Your task to perform on an android device: Open the map Image 0: 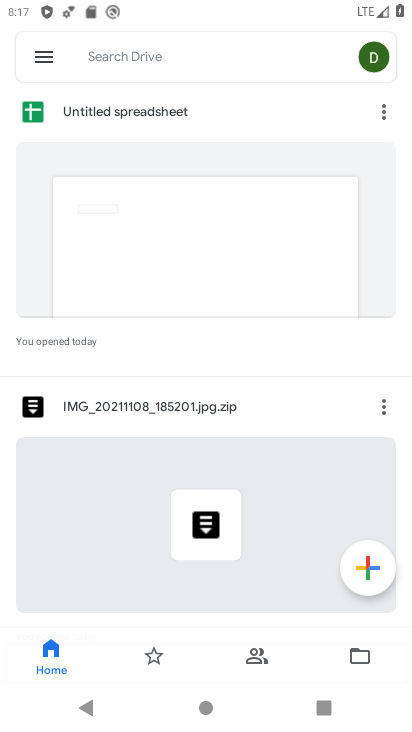
Step 0: press back button
Your task to perform on an android device: Open the map Image 1: 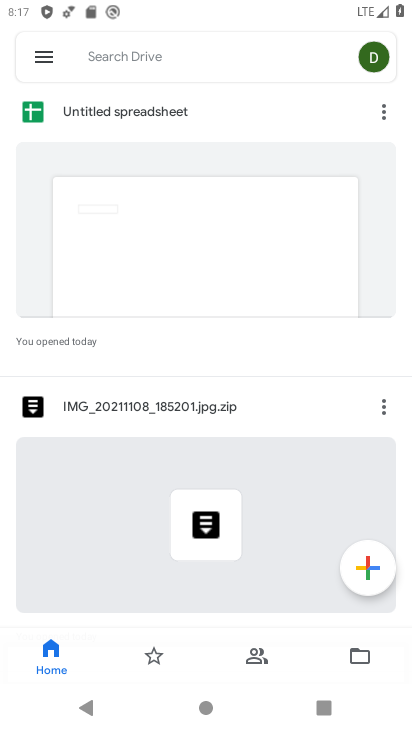
Step 1: press back button
Your task to perform on an android device: Open the map Image 2: 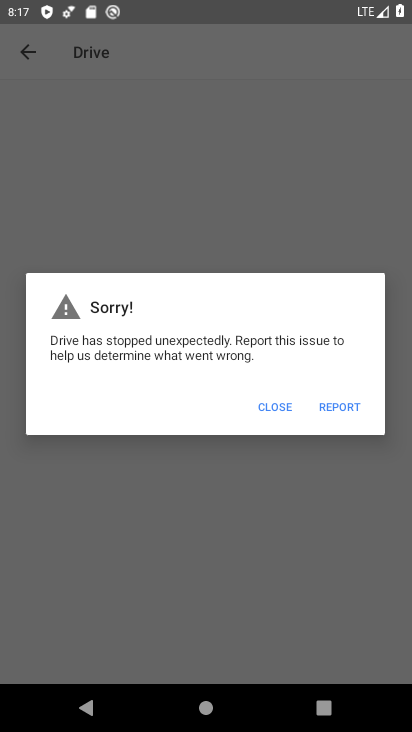
Step 2: press back button
Your task to perform on an android device: Open the map Image 3: 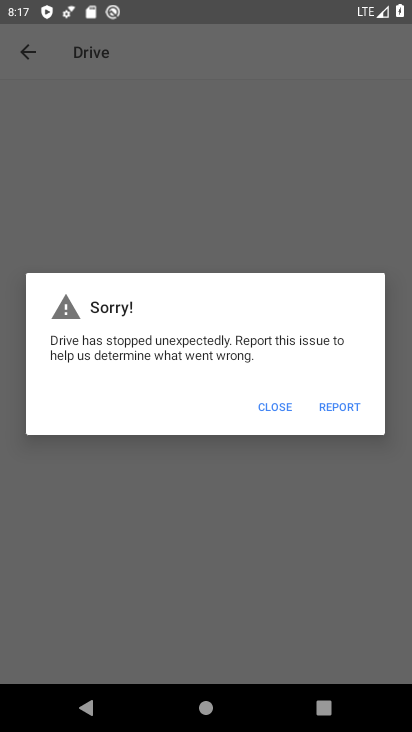
Step 3: click (251, 395)
Your task to perform on an android device: Open the map Image 4: 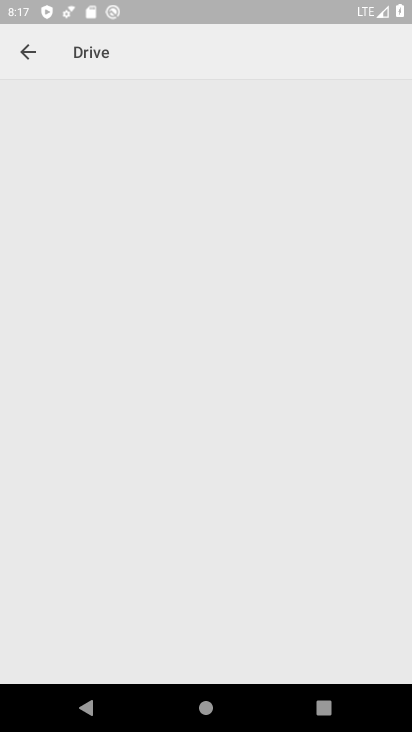
Step 4: click (260, 401)
Your task to perform on an android device: Open the map Image 5: 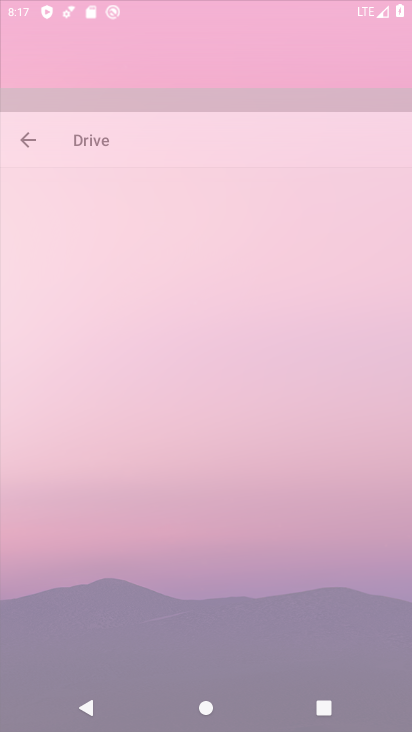
Step 5: click (261, 401)
Your task to perform on an android device: Open the map Image 6: 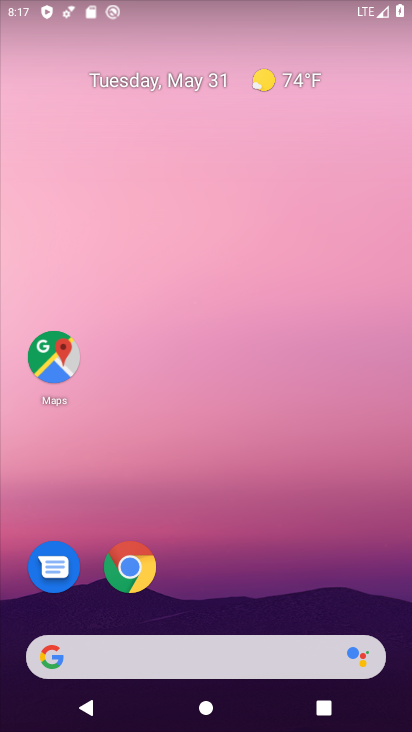
Step 6: drag from (270, 629) to (213, 162)
Your task to perform on an android device: Open the map Image 7: 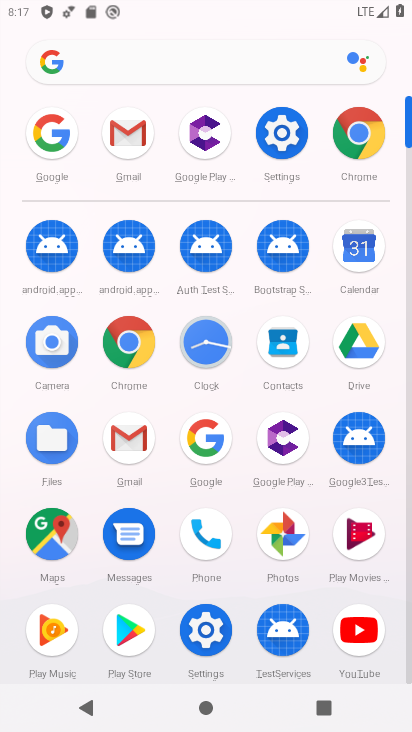
Step 7: click (53, 530)
Your task to perform on an android device: Open the map Image 8: 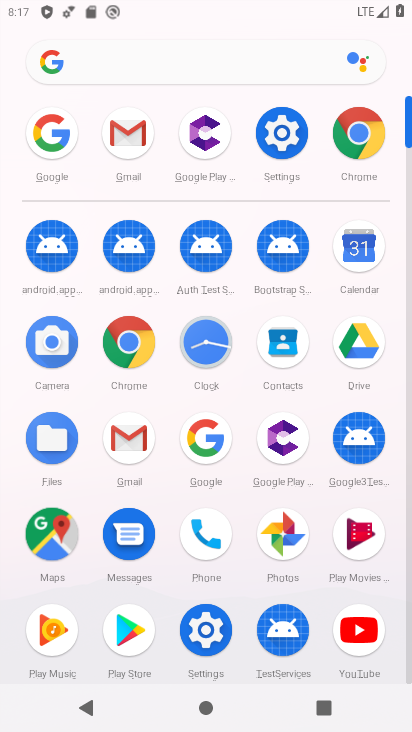
Step 8: click (53, 530)
Your task to perform on an android device: Open the map Image 9: 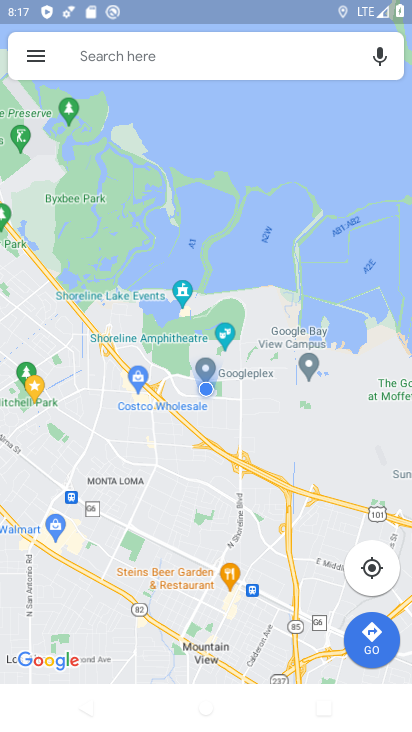
Step 9: task complete